Your task to perform on an android device: turn notification dots off Image 0: 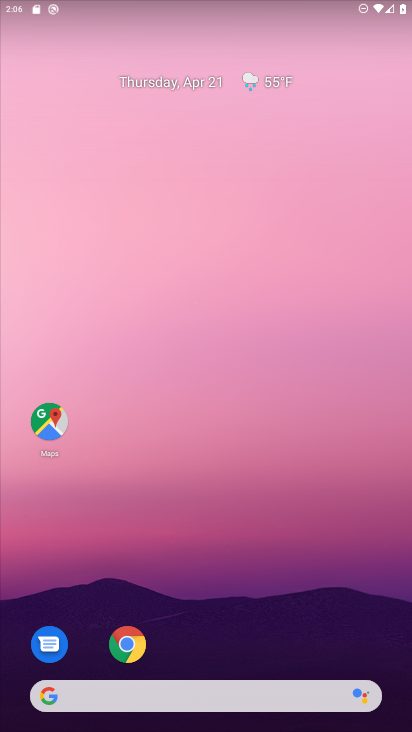
Step 0: click (208, 236)
Your task to perform on an android device: turn notification dots off Image 1: 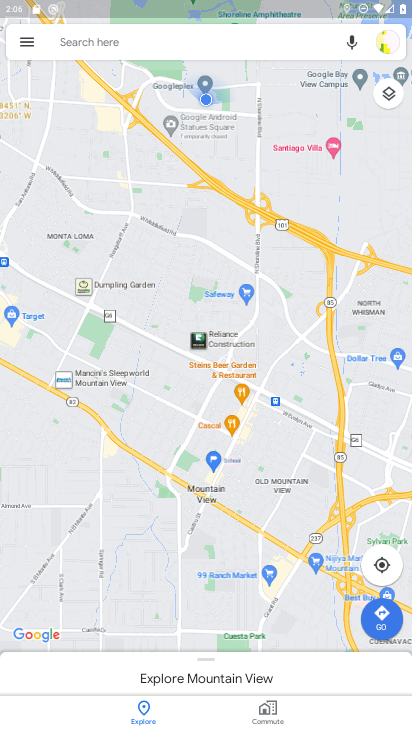
Step 1: press home button
Your task to perform on an android device: turn notification dots off Image 2: 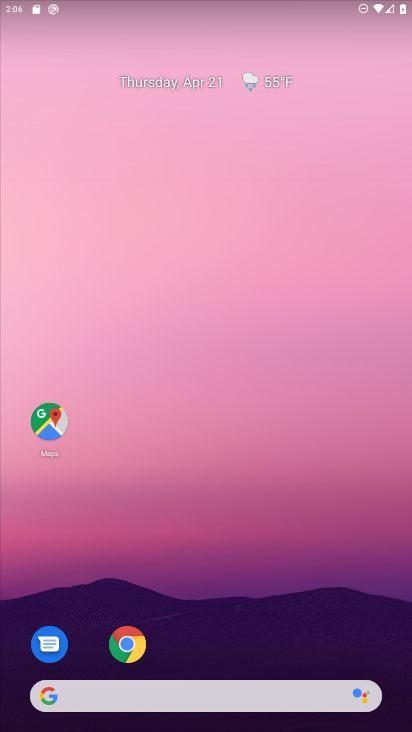
Step 2: drag from (237, 648) to (206, 199)
Your task to perform on an android device: turn notification dots off Image 3: 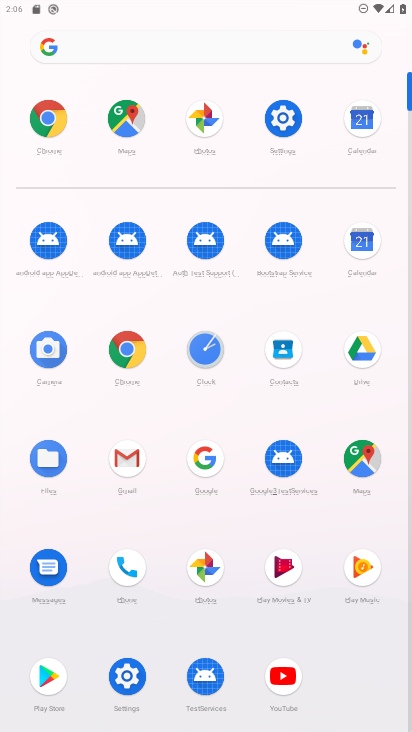
Step 3: click (290, 138)
Your task to perform on an android device: turn notification dots off Image 4: 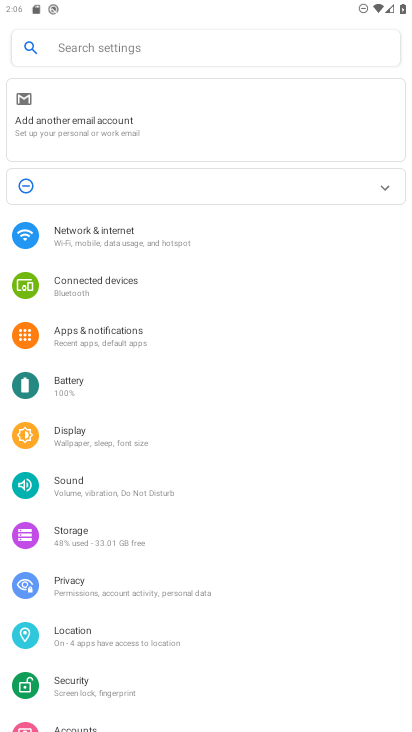
Step 4: click (232, 345)
Your task to perform on an android device: turn notification dots off Image 5: 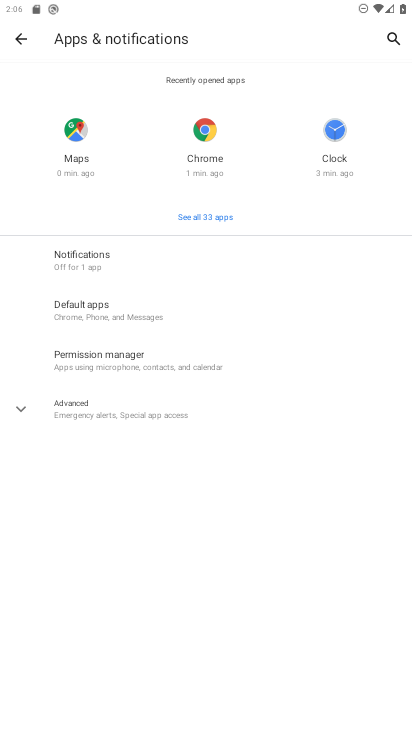
Step 5: click (204, 268)
Your task to perform on an android device: turn notification dots off Image 6: 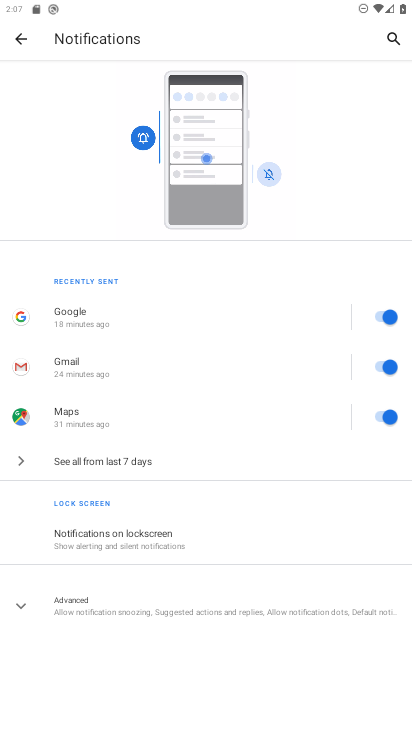
Step 6: click (165, 605)
Your task to perform on an android device: turn notification dots off Image 7: 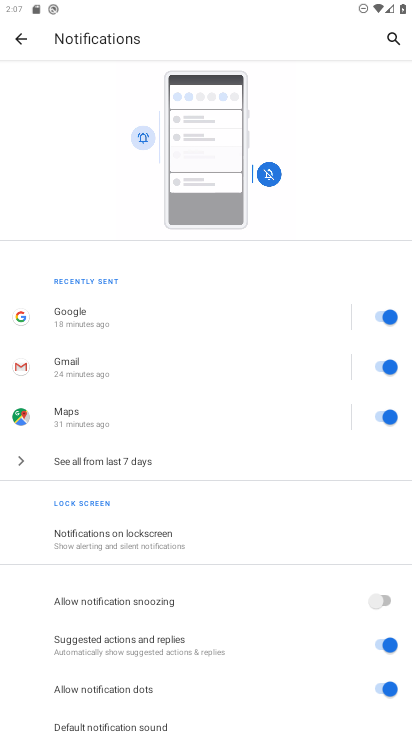
Step 7: drag from (191, 624) to (188, 412)
Your task to perform on an android device: turn notification dots off Image 8: 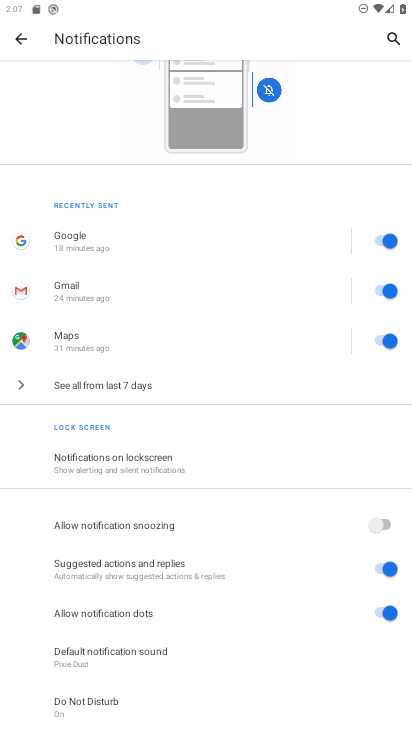
Step 8: click (386, 617)
Your task to perform on an android device: turn notification dots off Image 9: 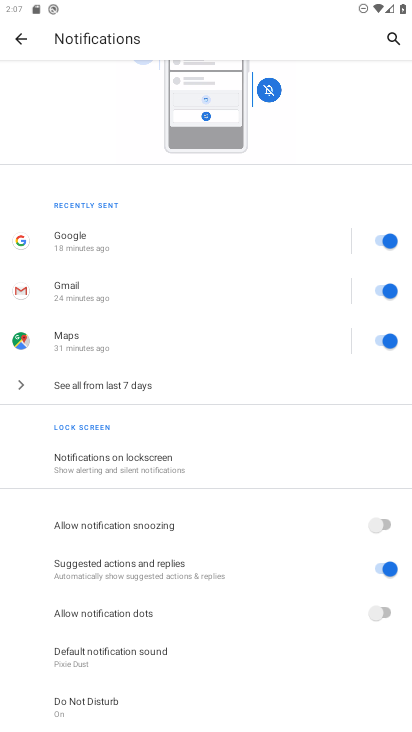
Step 9: task complete